Your task to perform on an android device: Open maps Image 0: 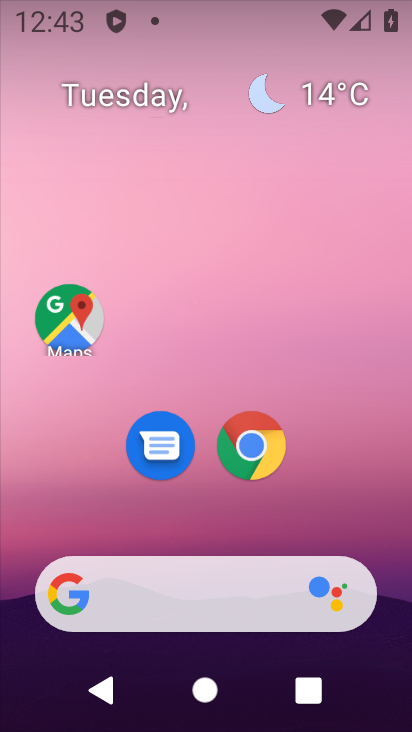
Step 0: drag from (340, 481) to (268, 20)
Your task to perform on an android device: Open maps Image 1: 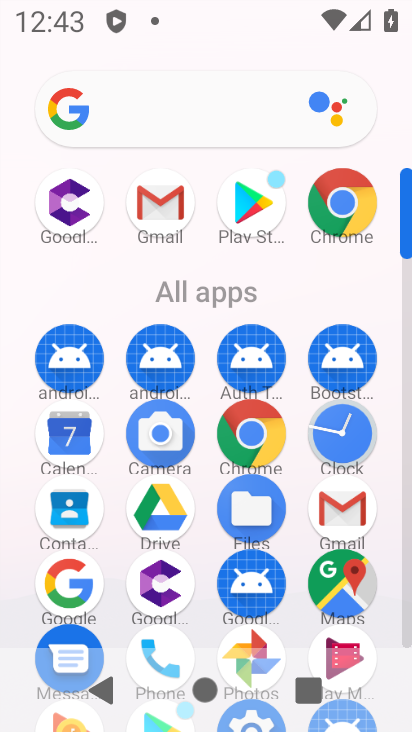
Step 1: click (344, 579)
Your task to perform on an android device: Open maps Image 2: 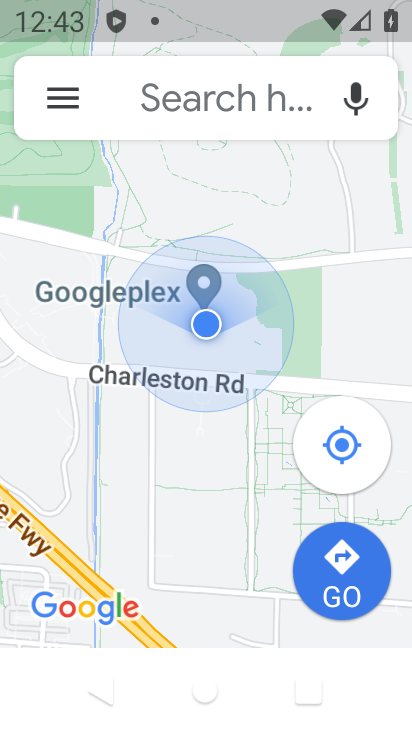
Step 2: task complete